Your task to perform on an android device: Open calendar and show me the first week of next month Image 0: 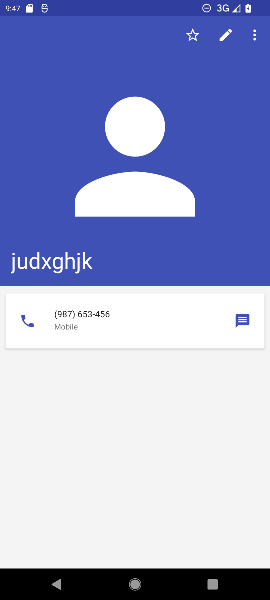
Step 0: press home button
Your task to perform on an android device: Open calendar and show me the first week of next month Image 1: 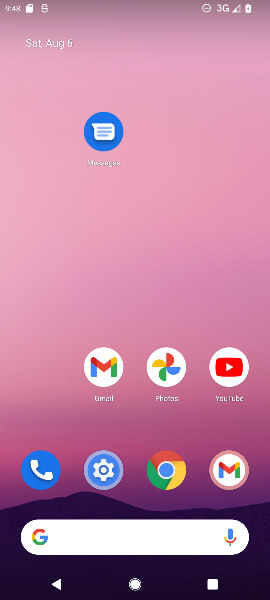
Step 1: drag from (186, 548) to (241, 153)
Your task to perform on an android device: Open calendar and show me the first week of next month Image 2: 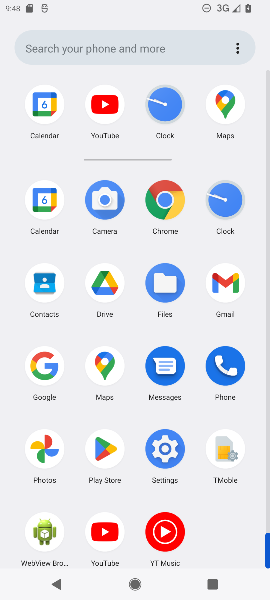
Step 2: click (52, 209)
Your task to perform on an android device: Open calendar and show me the first week of next month Image 3: 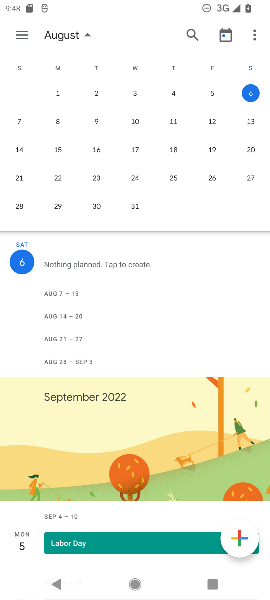
Step 3: drag from (222, 158) to (1, 166)
Your task to perform on an android device: Open calendar and show me the first week of next month Image 4: 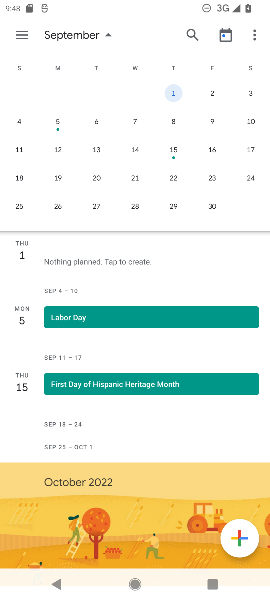
Step 4: click (16, 120)
Your task to perform on an android device: Open calendar and show me the first week of next month Image 5: 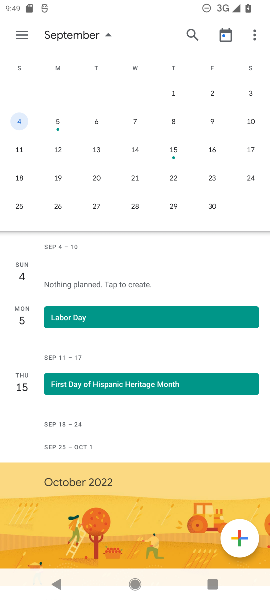
Step 5: task complete